Your task to perform on an android device: Open Yahoo.com Image 0: 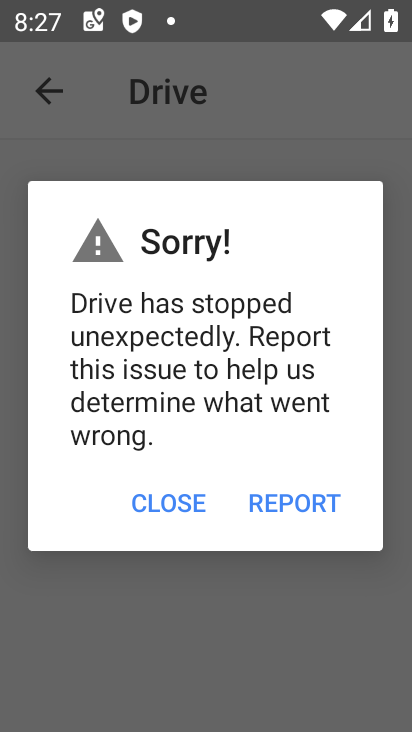
Step 0: press home button
Your task to perform on an android device: Open Yahoo.com Image 1: 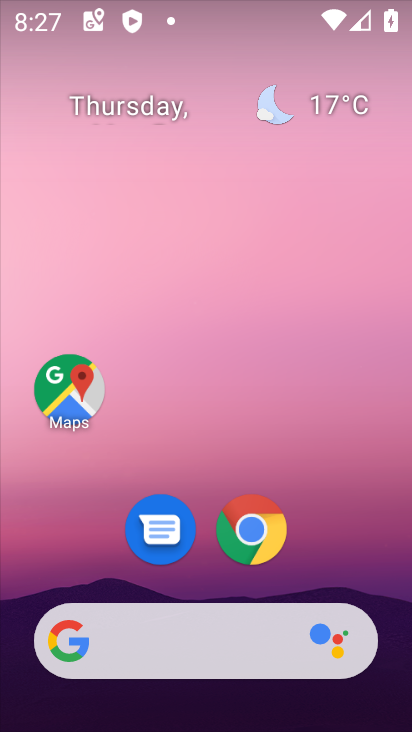
Step 1: click (258, 532)
Your task to perform on an android device: Open Yahoo.com Image 2: 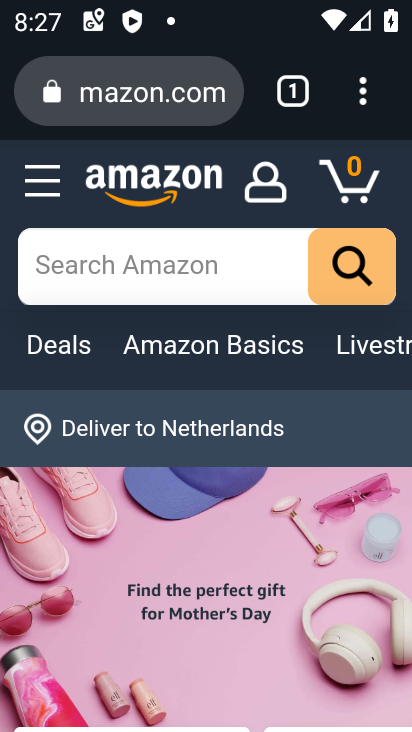
Step 2: click (360, 92)
Your task to perform on an android device: Open Yahoo.com Image 3: 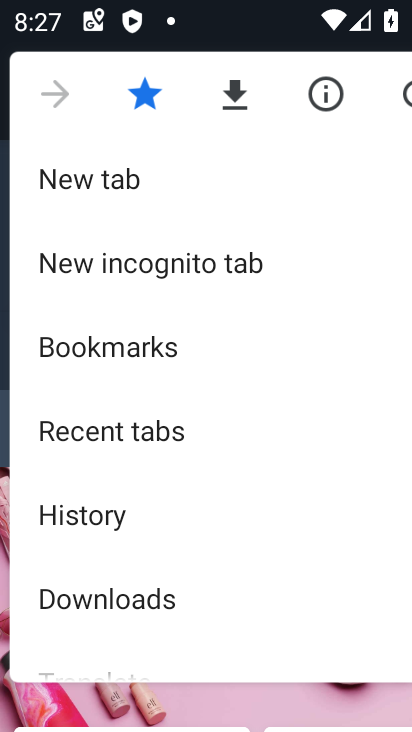
Step 3: click (124, 173)
Your task to perform on an android device: Open Yahoo.com Image 4: 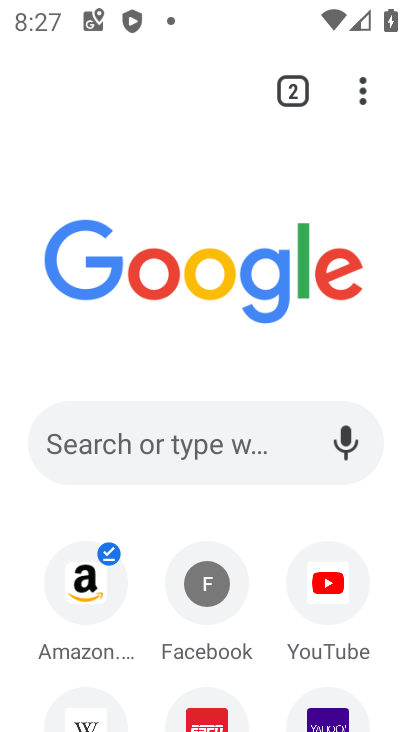
Step 4: drag from (216, 349) to (202, 107)
Your task to perform on an android device: Open Yahoo.com Image 5: 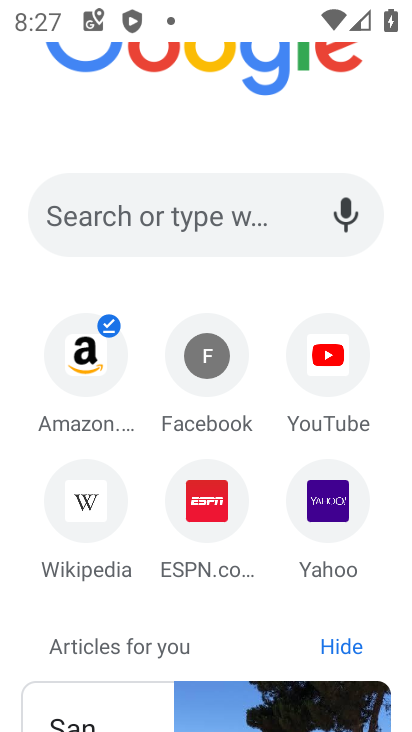
Step 5: click (325, 510)
Your task to perform on an android device: Open Yahoo.com Image 6: 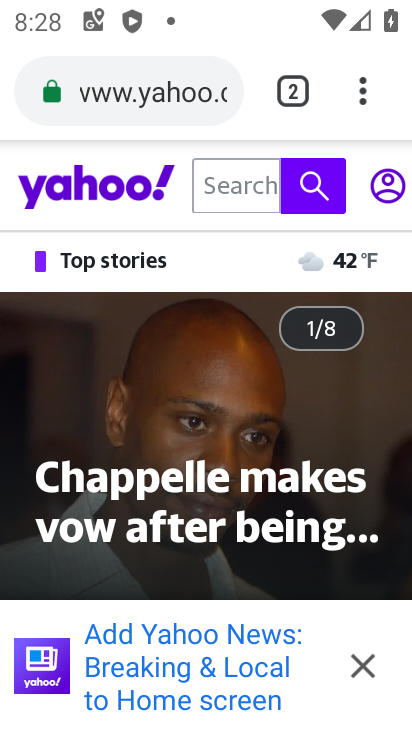
Step 6: task complete